Your task to perform on an android device: What is the news today? Image 0: 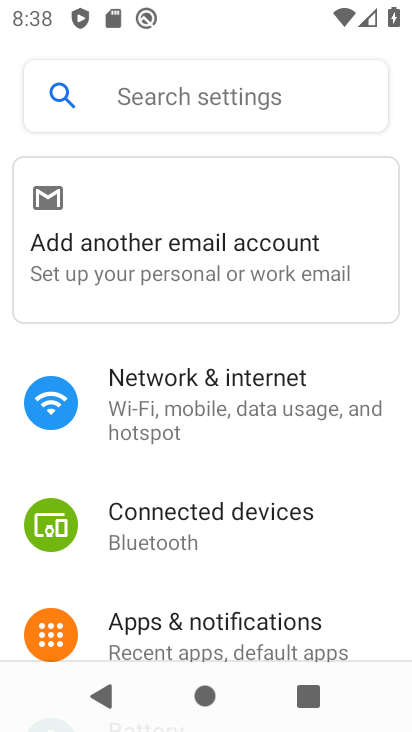
Step 0: press back button
Your task to perform on an android device: What is the news today? Image 1: 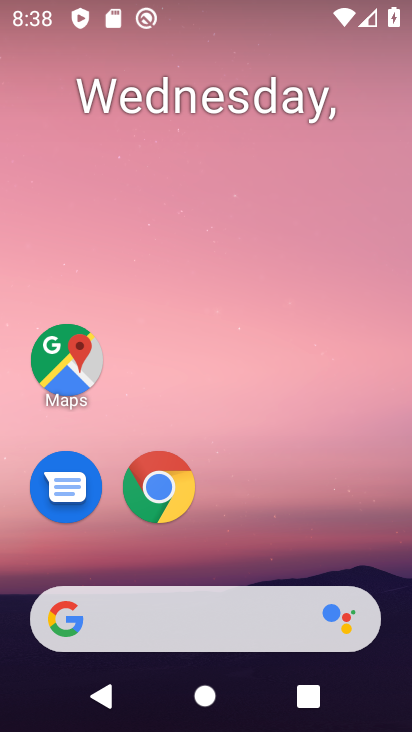
Step 1: click (195, 637)
Your task to perform on an android device: What is the news today? Image 2: 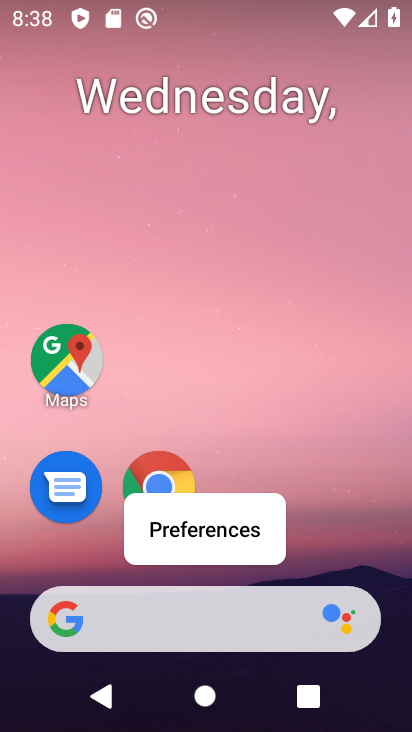
Step 2: click (172, 638)
Your task to perform on an android device: What is the news today? Image 3: 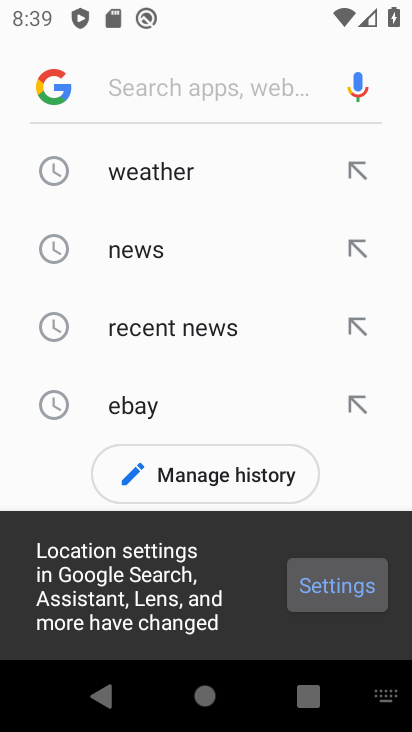
Step 3: click (149, 255)
Your task to perform on an android device: What is the news today? Image 4: 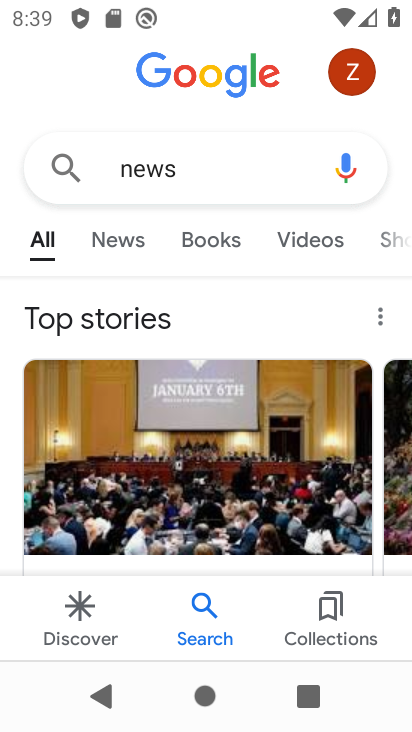
Step 4: click (216, 171)
Your task to perform on an android device: What is the news today? Image 5: 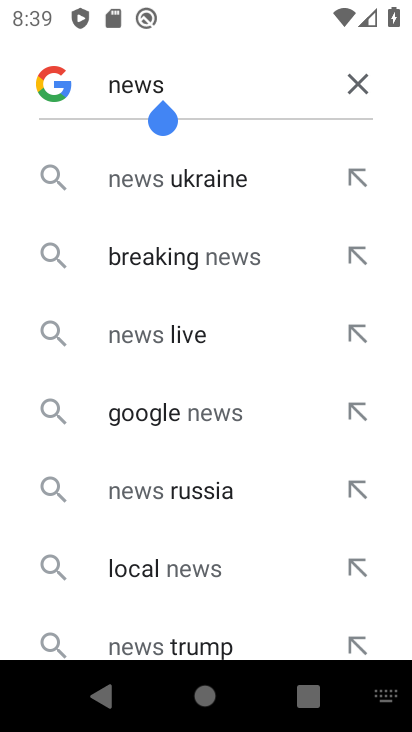
Step 5: click (215, 96)
Your task to perform on an android device: What is the news today? Image 6: 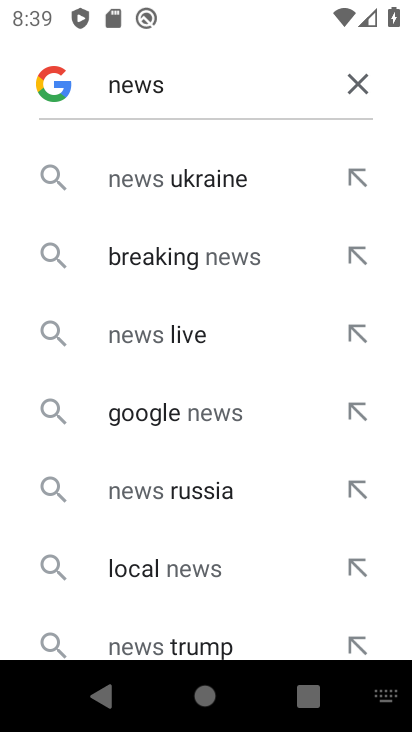
Step 6: type " today"
Your task to perform on an android device: What is the news today? Image 7: 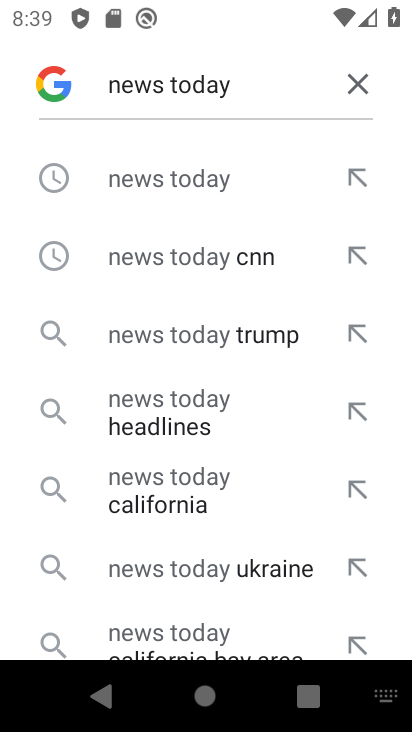
Step 7: click (207, 169)
Your task to perform on an android device: What is the news today? Image 8: 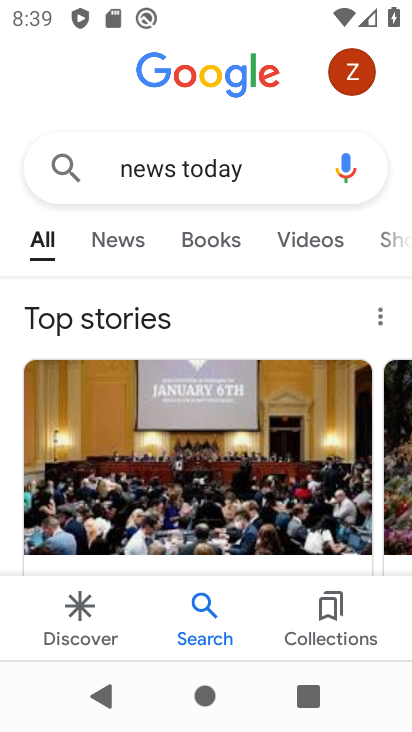
Step 8: task complete